Your task to perform on an android device: turn on showing notifications on the lock screen Image 0: 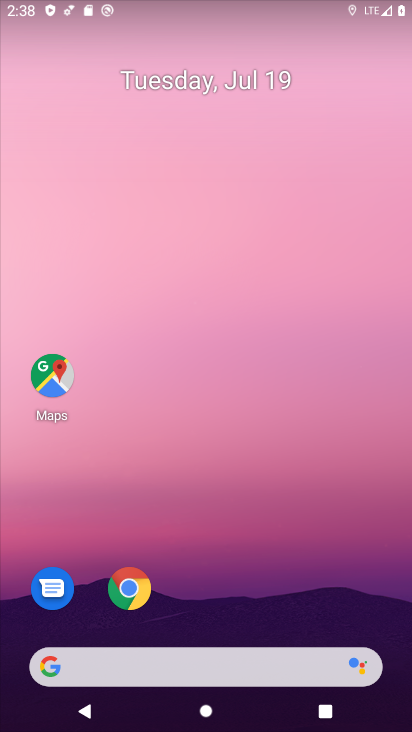
Step 0: drag from (204, 623) to (232, 70)
Your task to perform on an android device: turn on showing notifications on the lock screen Image 1: 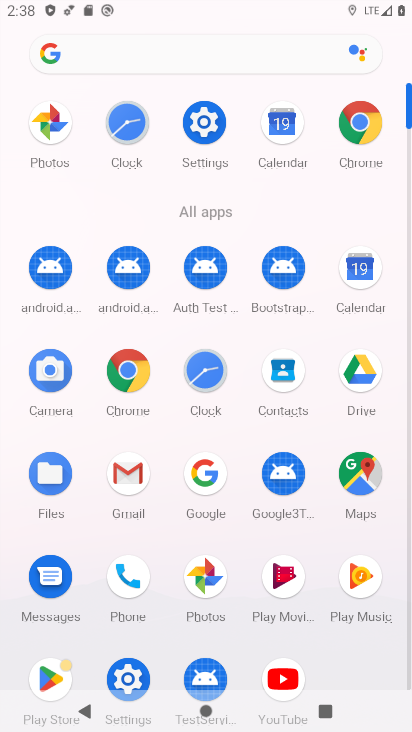
Step 1: click (204, 125)
Your task to perform on an android device: turn on showing notifications on the lock screen Image 2: 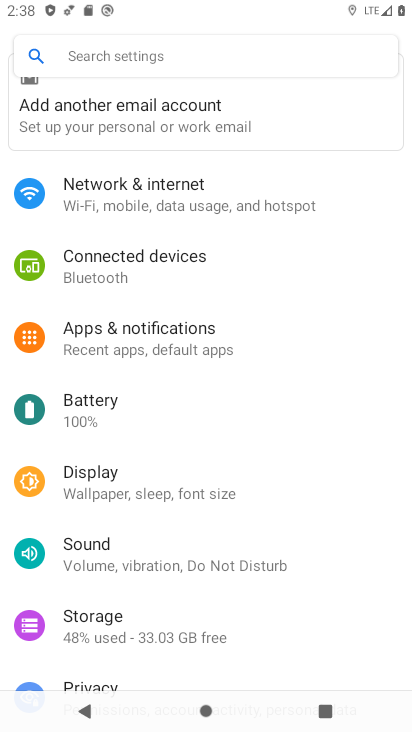
Step 2: drag from (234, 408) to (249, 322)
Your task to perform on an android device: turn on showing notifications on the lock screen Image 3: 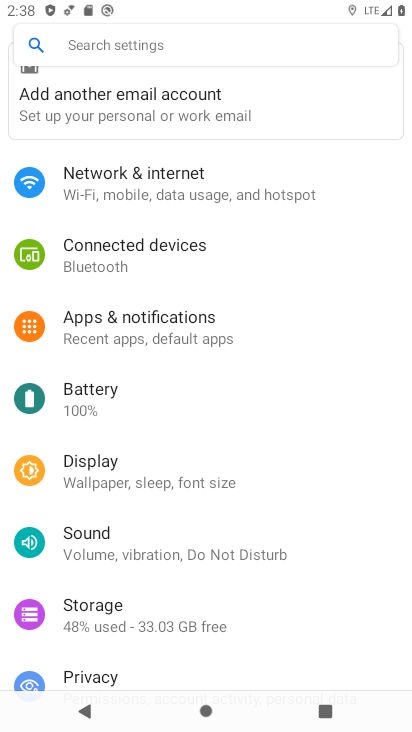
Step 3: click (198, 327)
Your task to perform on an android device: turn on showing notifications on the lock screen Image 4: 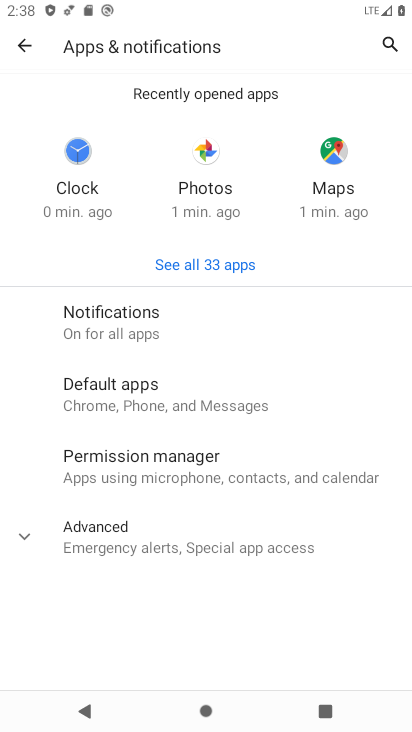
Step 4: click (147, 327)
Your task to perform on an android device: turn on showing notifications on the lock screen Image 5: 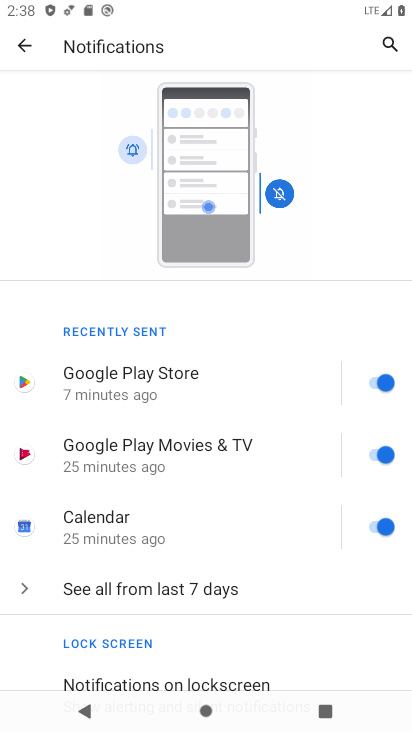
Step 5: click (143, 671)
Your task to perform on an android device: turn on showing notifications on the lock screen Image 6: 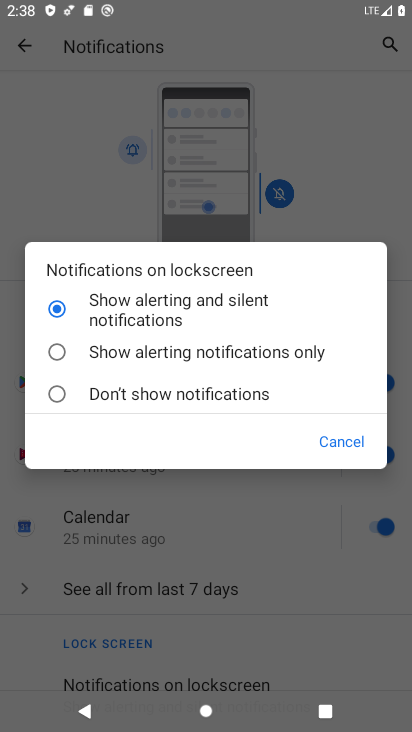
Step 6: task complete